Your task to perform on an android device: open a bookmark in the chrome app Image 0: 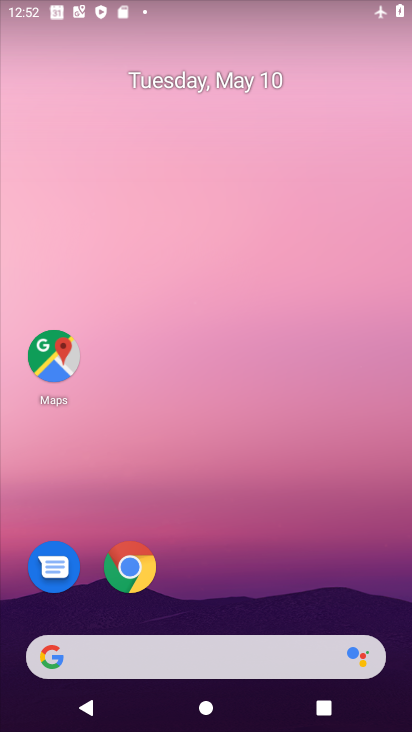
Step 0: drag from (386, 609) to (353, 48)
Your task to perform on an android device: open a bookmark in the chrome app Image 1: 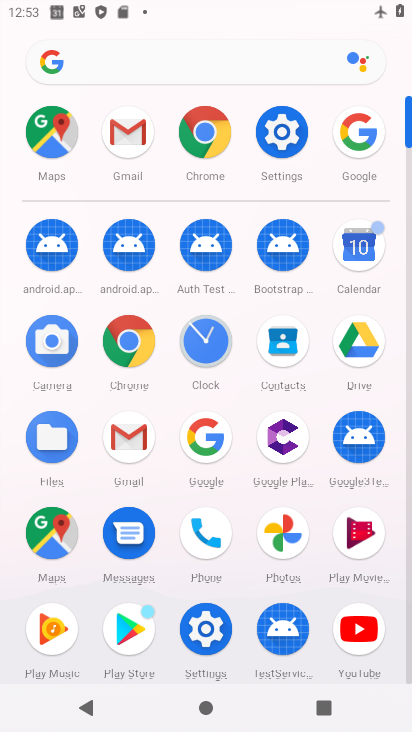
Step 1: click (136, 347)
Your task to perform on an android device: open a bookmark in the chrome app Image 2: 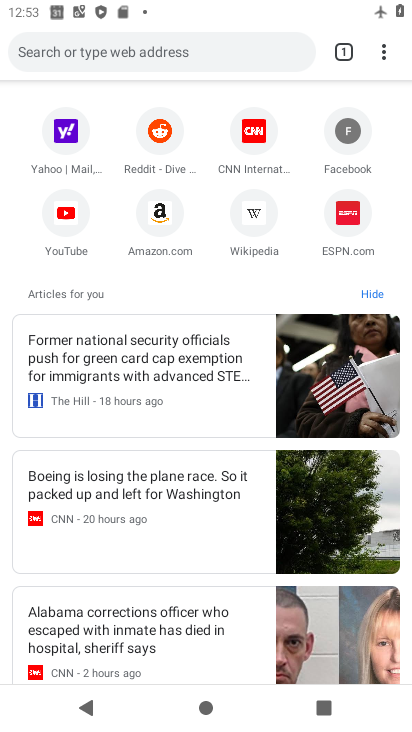
Step 2: click (383, 46)
Your task to perform on an android device: open a bookmark in the chrome app Image 3: 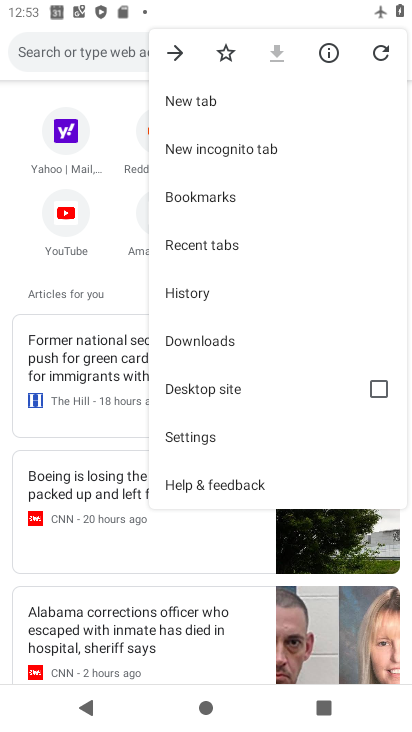
Step 3: click (232, 208)
Your task to perform on an android device: open a bookmark in the chrome app Image 4: 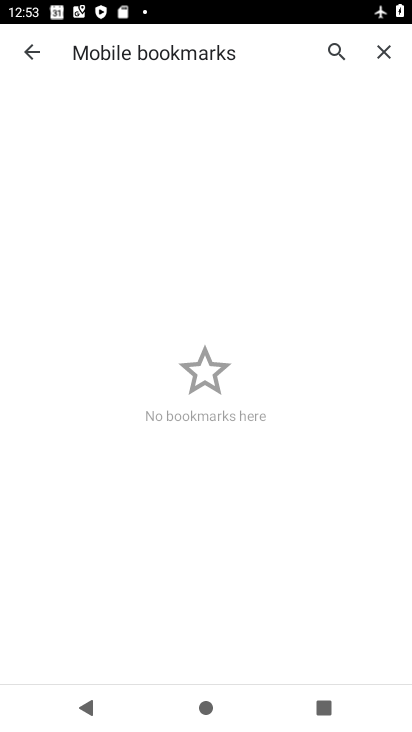
Step 4: task complete